Your task to perform on an android device: turn on improve location accuracy Image 0: 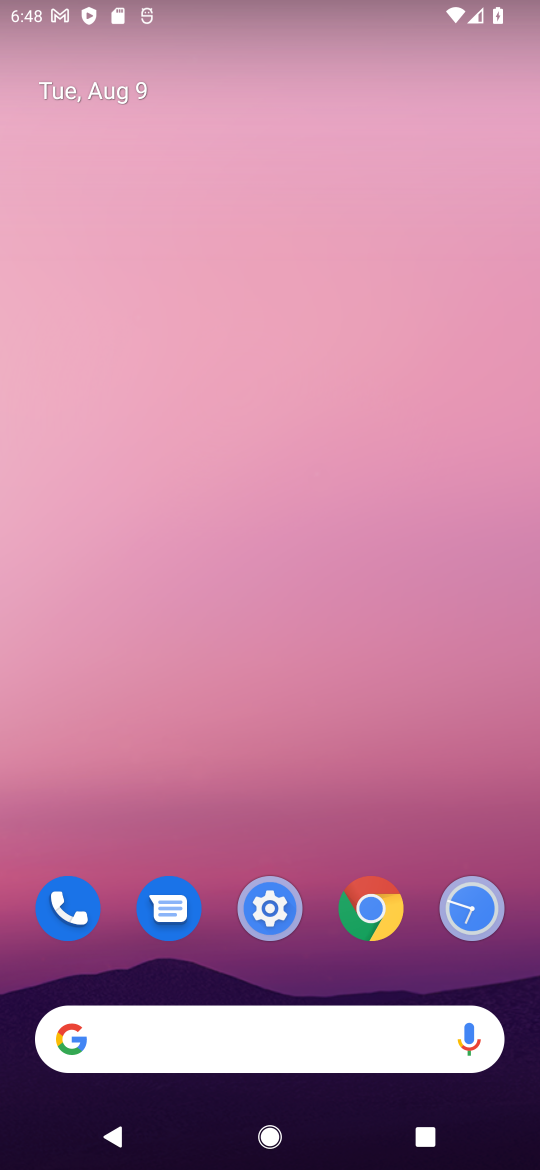
Step 0: drag from (317, 993) to (336, 374)
Your task to perform on an android device: turn on improve location accuracy Image 1: 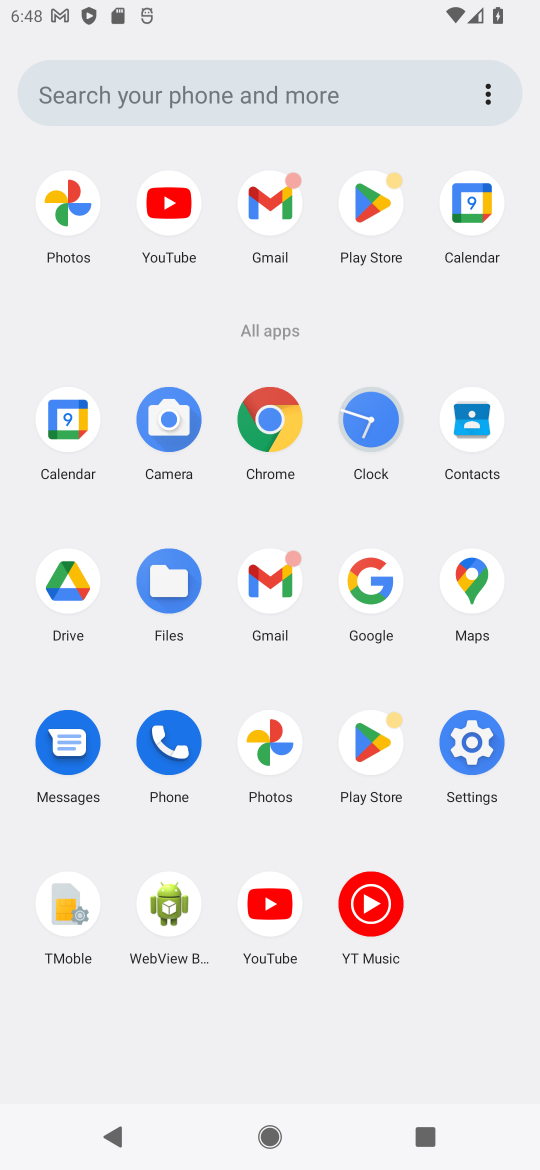
Step 1: click (473, 739)
Your task to perform on an android device: turn on improve location accuracy Image 2: 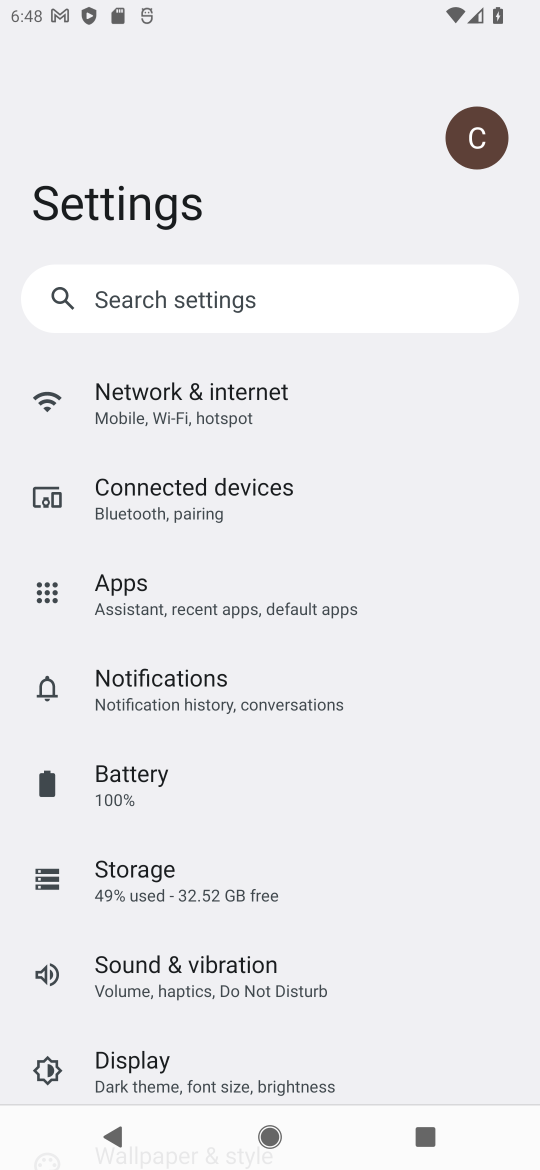
Step 2: drag from (159, 1028) to (147, 492)
Your task to perform on an android device: turn on improve location accuracy Image 3: 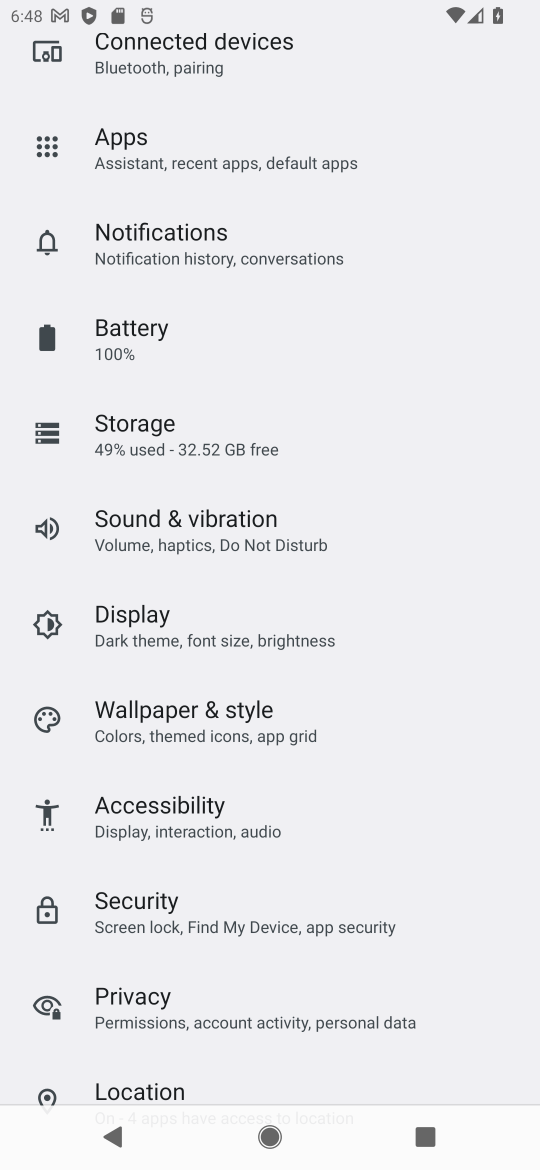
Step 3: click (140, 1082)
Your task to perform on an android device: turn on improve location accuracy Image 4: 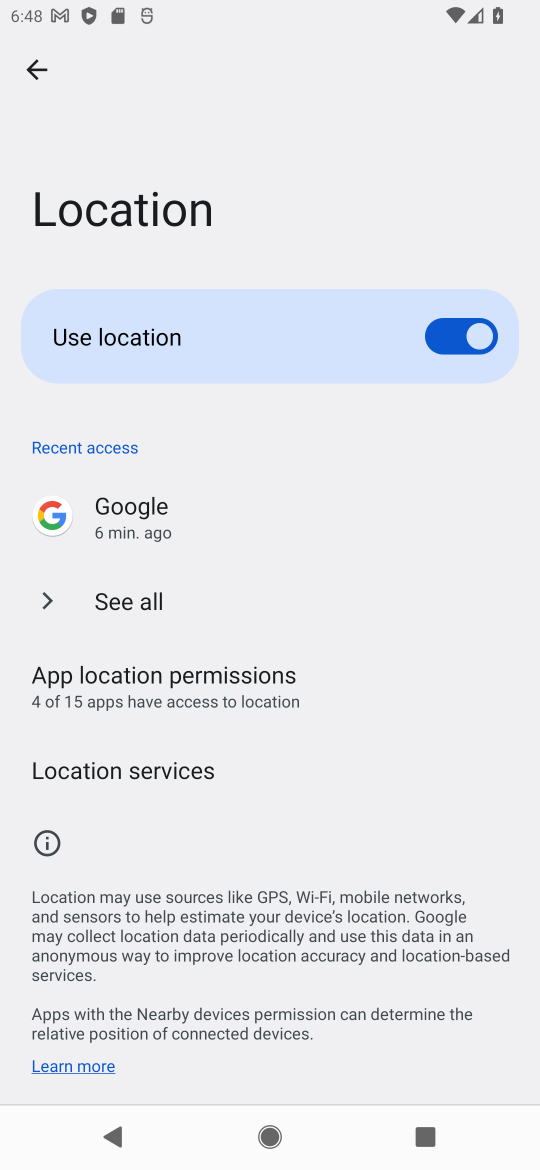
Step 4: click (160, 770)
Your task to perform on an android device: turn on improve location accuracy Image 5: 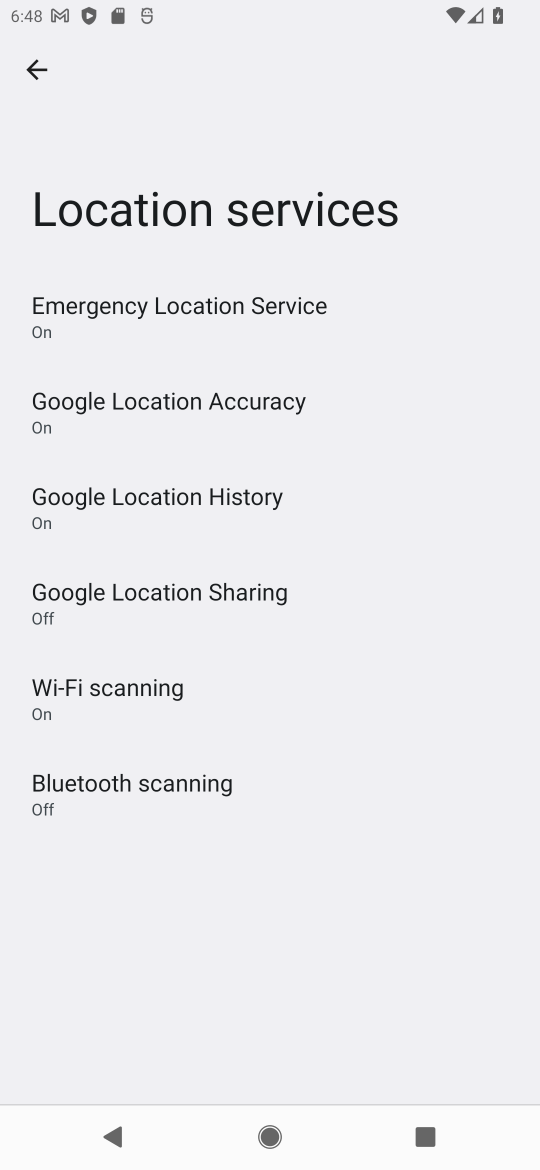
Step 5: click (171, 395)
Your task to perform on an android device: turn on improve location accuracy Image 6: 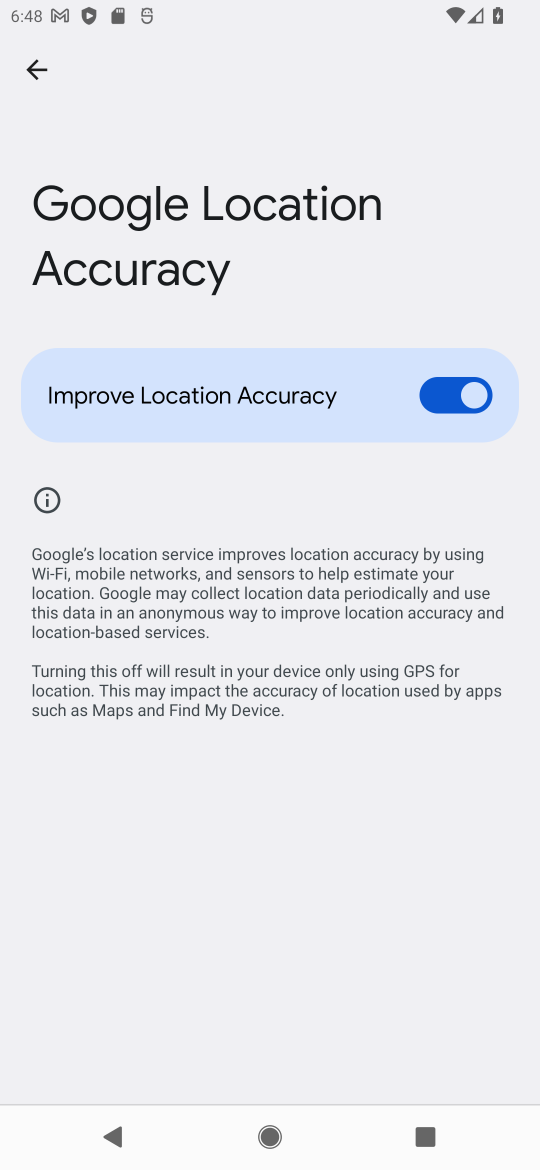
Step 6: task complete